Your task to perform on an android device: Play the last video I watched on Youtube Image 0: 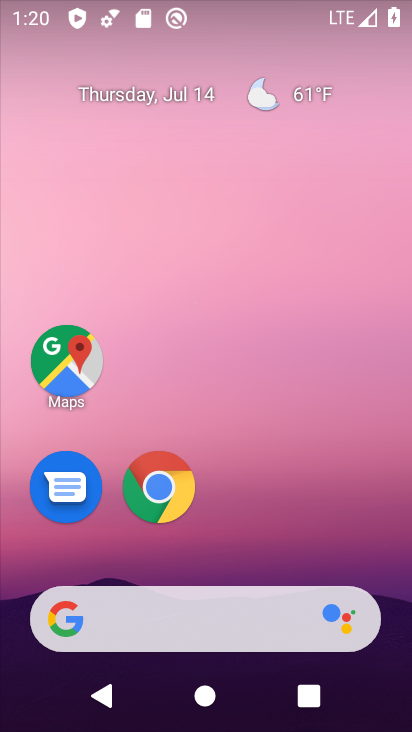
Step 0: drag from (307, 545) to (334, 121)
Your task to perform on an android device: Play the last video I watched on Youtube Image 1: 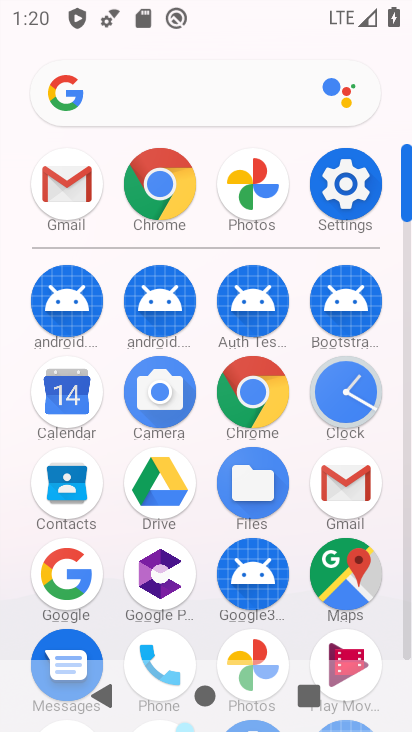
Step 1: drag from (389, 530) to (390, 283)
Your task to perform on an android device: Play the last video I watched on Youtube Image 2: 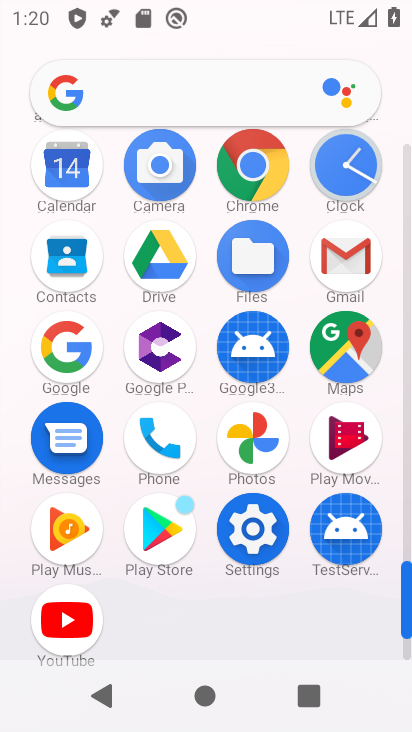
Step 2: click (71, 615)
Your task to perform on an android device: Play the last video I watched on Youtube Image 3: 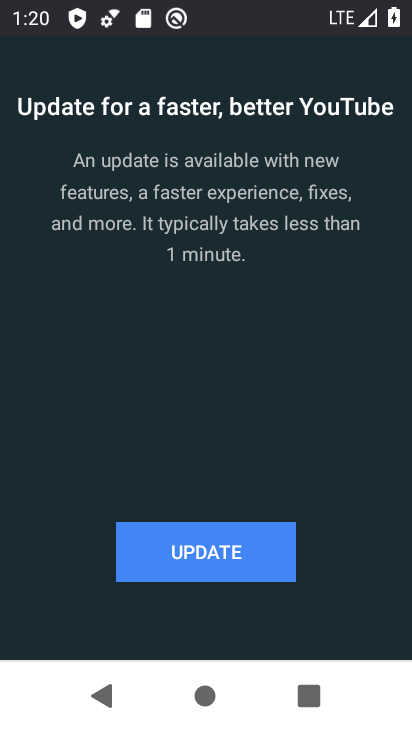
Step 3: click (219, 558)
Your task to perform on an android device: Play the last video I watched on Youtube Image 4: 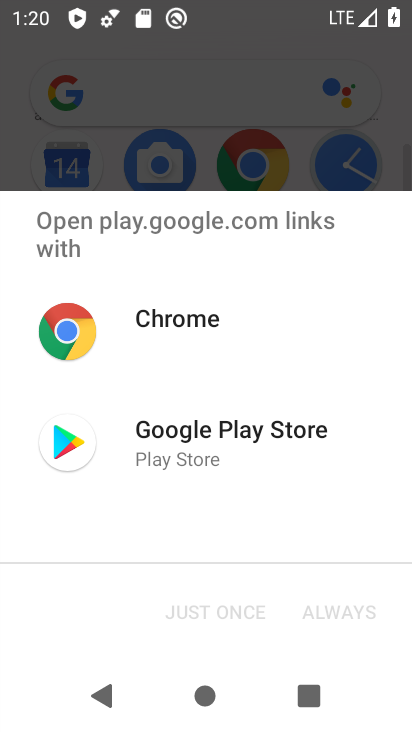
Step 4: click (200, 440)
Your task to perform on an android device: Play the last video I watched on Youtube Image 5: 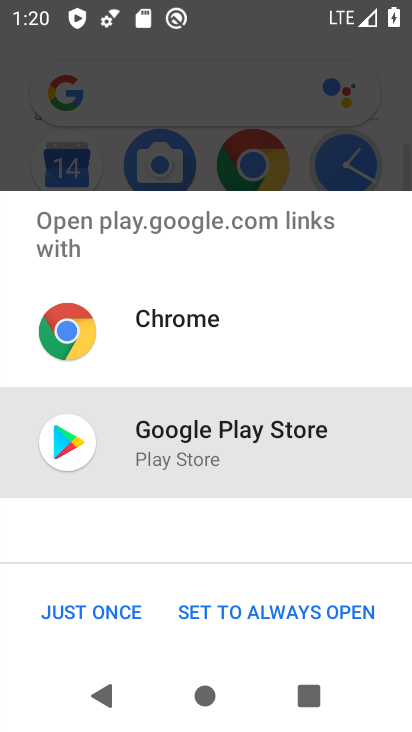
Step 5: click (100, 602)
Your task to perform on an android device: Play the last video I watched on Youtube Image 6: 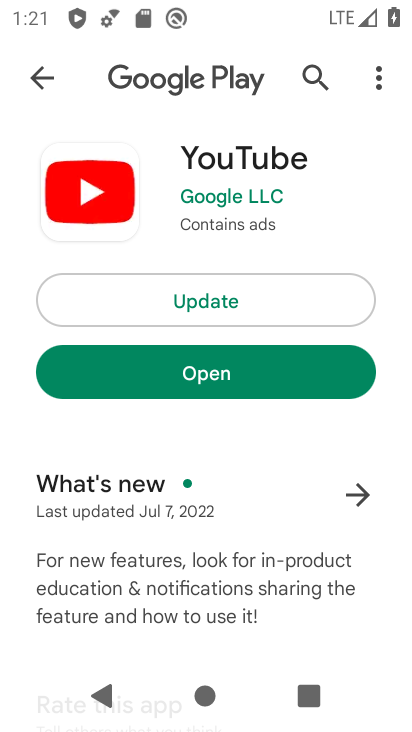
Step 6: click (245, 296)
Your task to perform on an android device: Play the last video I watched on Youtube Image 7: 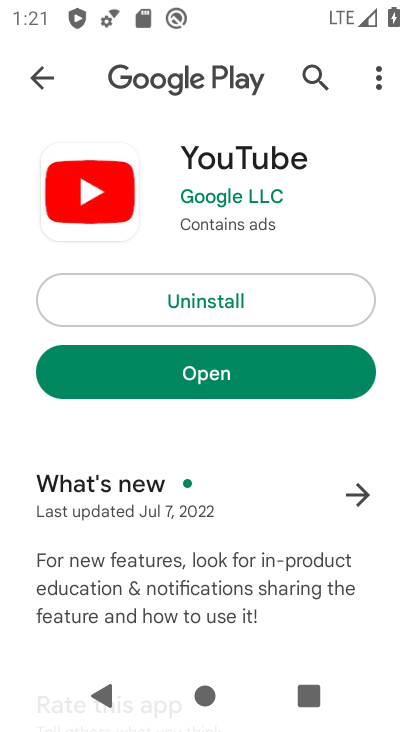
Step 7: click (227, 377)
Your task to perform on an android device: Play the last video I watched on Youtube Image 8: 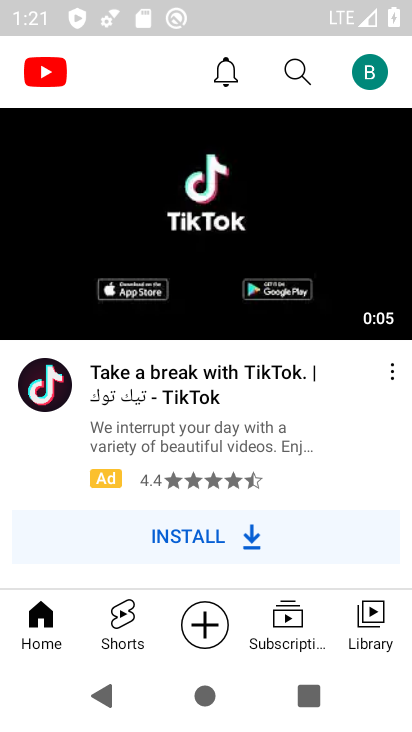
Step 8: click (369, 631)
Your task to perform on an android device: Play the last video I watched on Youtube Image 9: 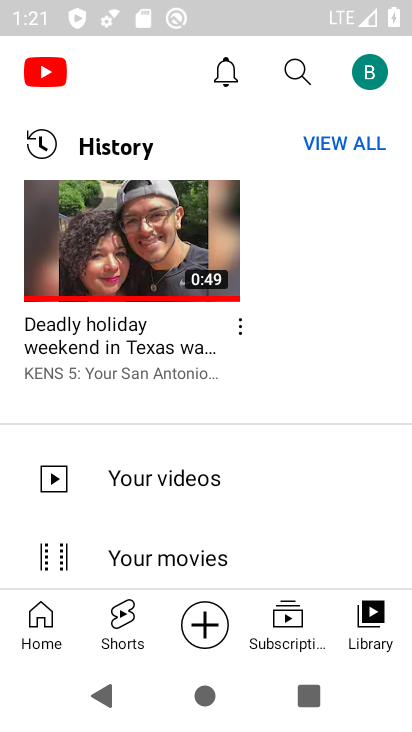
Step 9: click (128, 234)
Your task to perform on an android device: Play the last video I watched on Youtube Image 10: 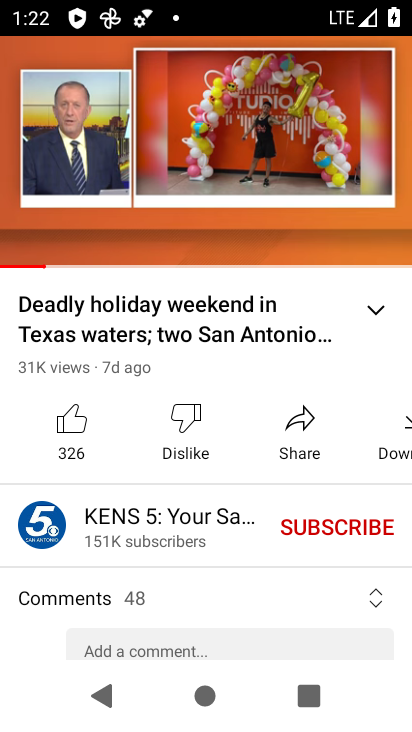
Step 10: task complete